Your task to perform on an android device: Search for the new Jordans on Nike.com Image 0: 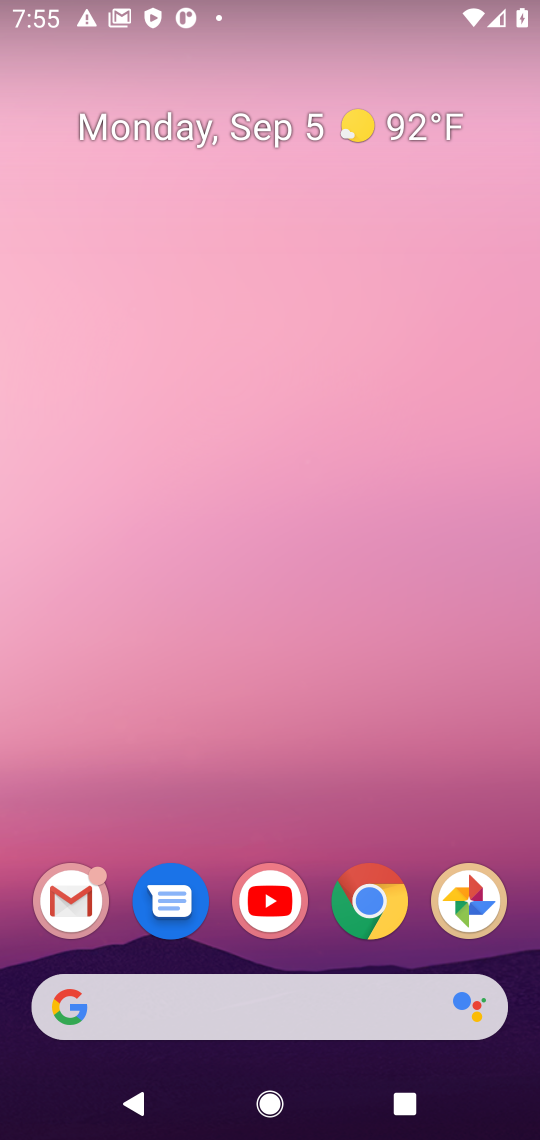
Step 0: click (378, 914)
Your task to perform on an android device: Search for the new Jordans on Nike.com Image 1: 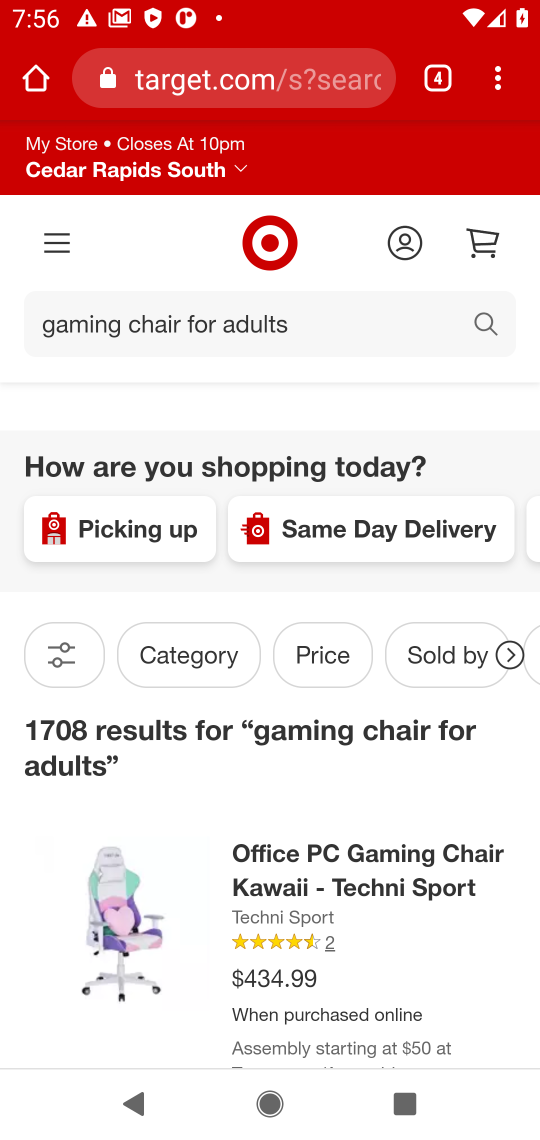
Step 1: click (331, 852)
Your task to perform on an android device: Search for the new Jordans on Nike.com Image 2: 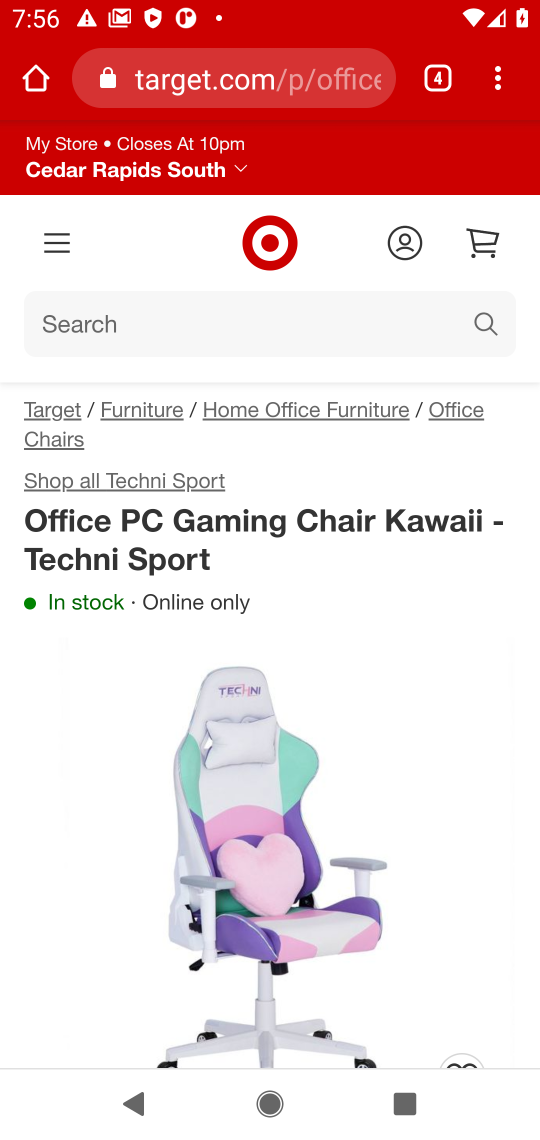
Step 2: click (312, 74)
Your task to perform on an android device: Search for the new Jordans on Nike.com Image 3: 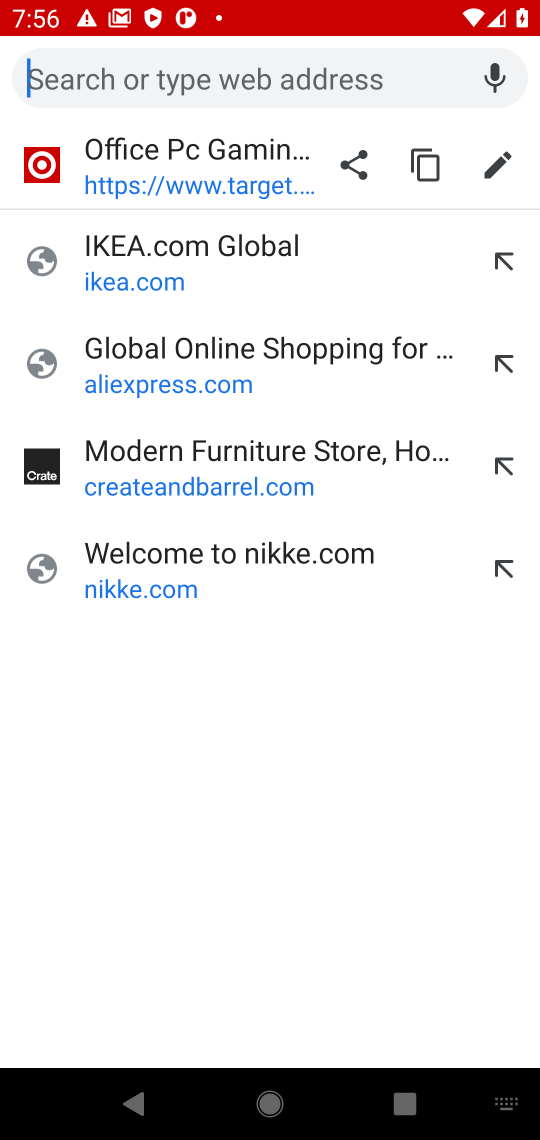
Step 3: click (178, 84)
Your task to perform on an android device: Search for the new Jordans on Nike.com Image 4: 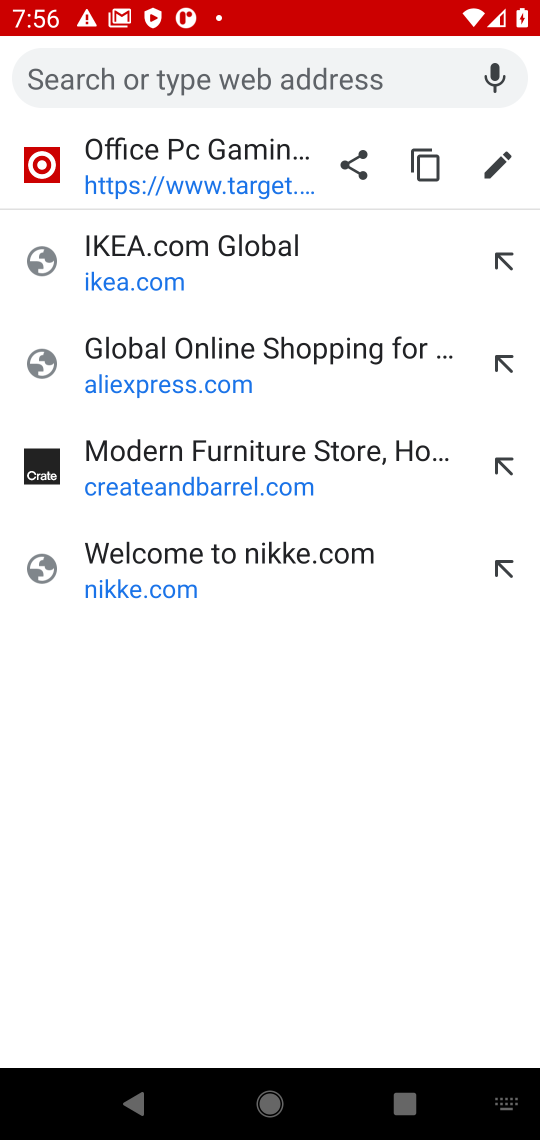
Step 4: type "nikki"
Your task to perform on an android device: Search for the new Jordans on Nike.com Image 5: 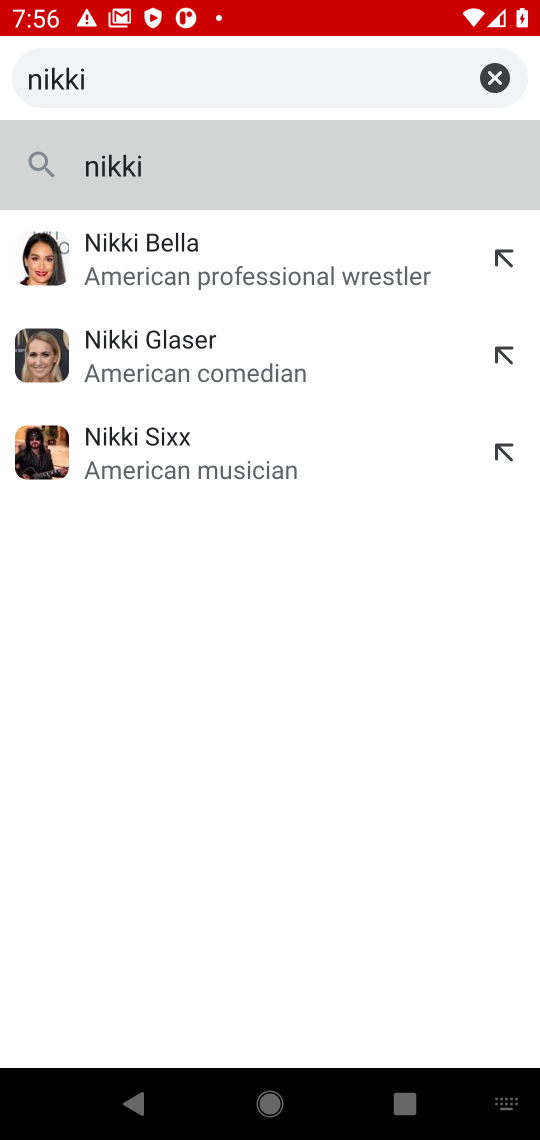
Step 5: click (174, 199)
Your task to perform on an android device: Search for the new Jordans on Nike.com Image 6: 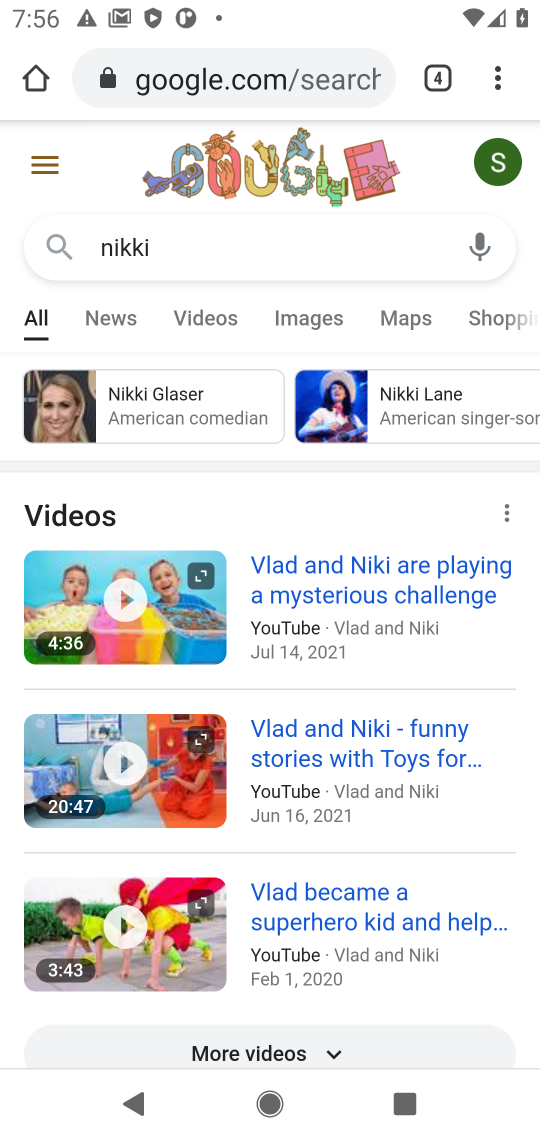
Step 6: click (177, 265)
Your task to perform on an android device: Search for the new Jordans on Nike.com Image 7: 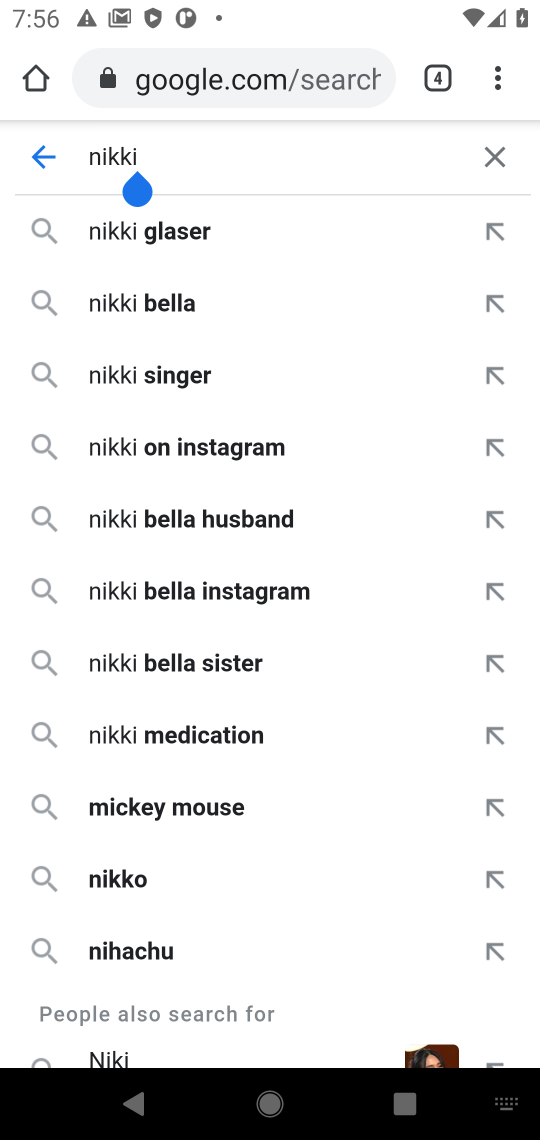
Step 7: click (495, 176)
Your task to perform on an android device: Search for the new Jordans on Nike.com Image 8: 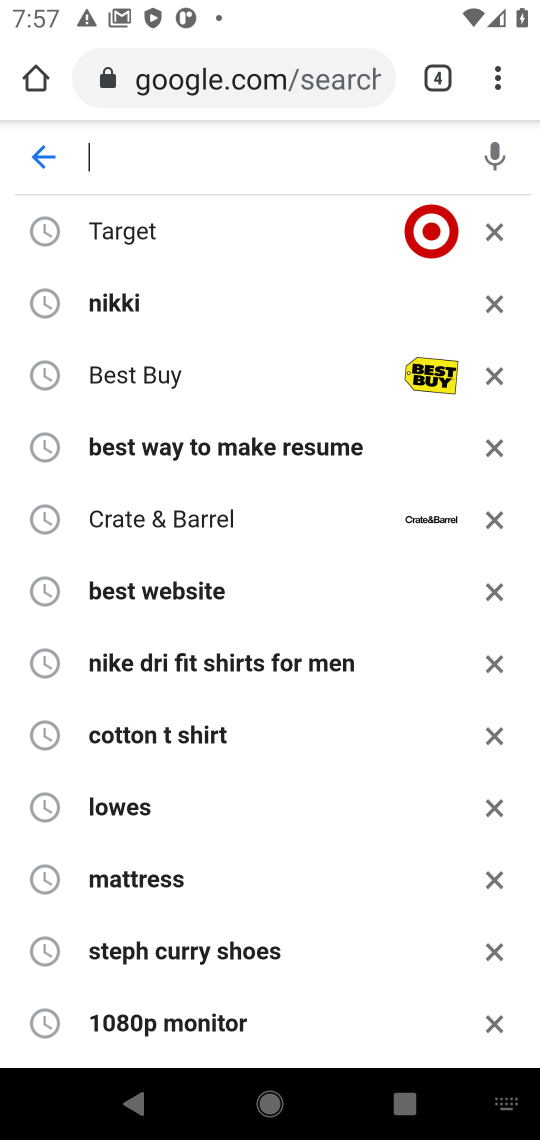
Step 8: type "nikke"
Your task to perform on an android device: Search for the new Jordans on Nike.com Image 9: 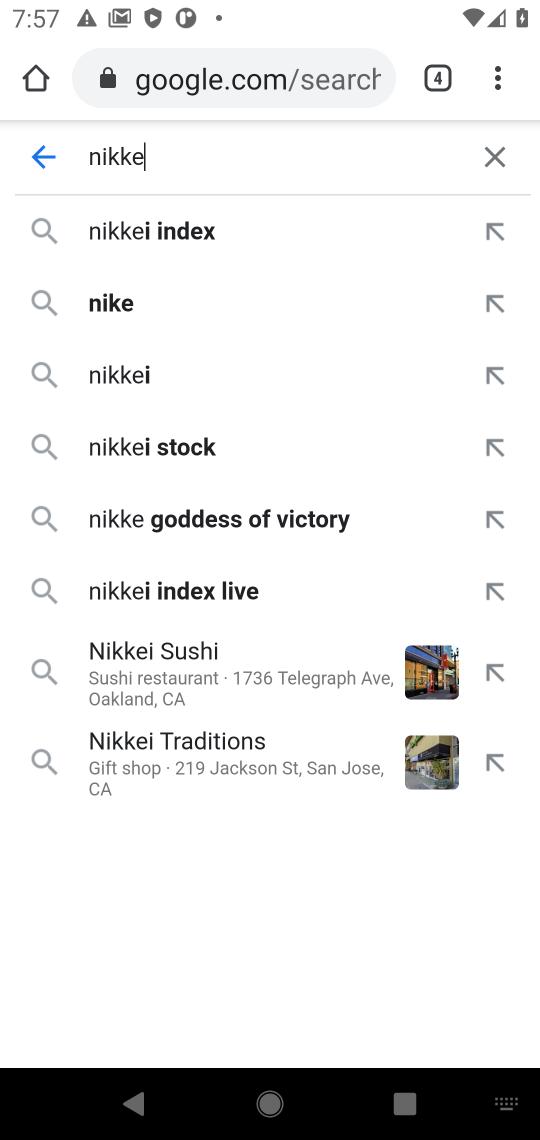
Step 9: click (140, 297)
Your task to perform on an android device: Search for the new Jordans on Nike.com Image 10: 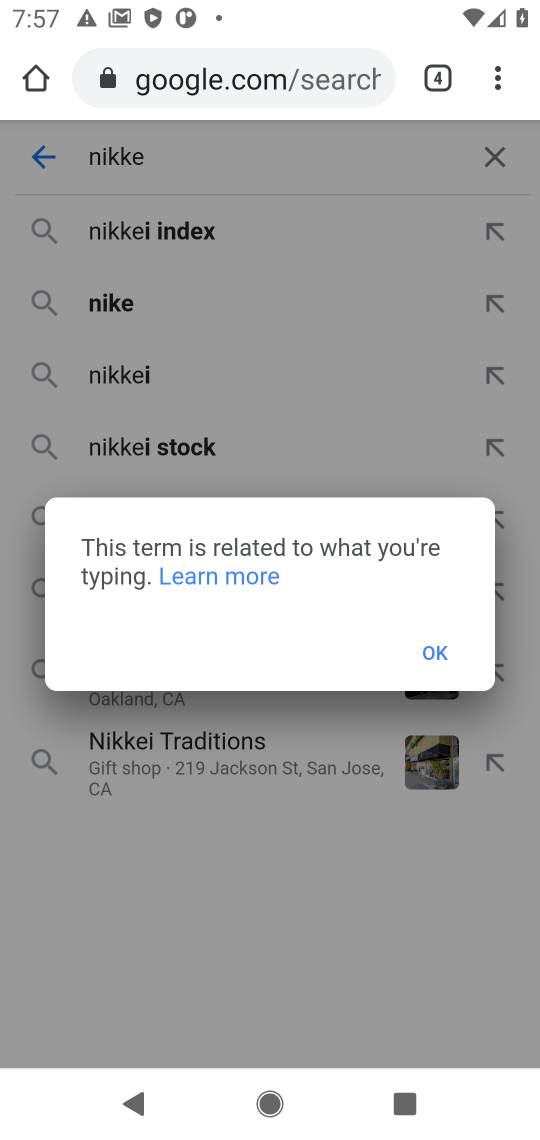
Step 10: click (439, 637)
Your task to perform on an android device: Search for the new Jordans on Nike.com Image 11: 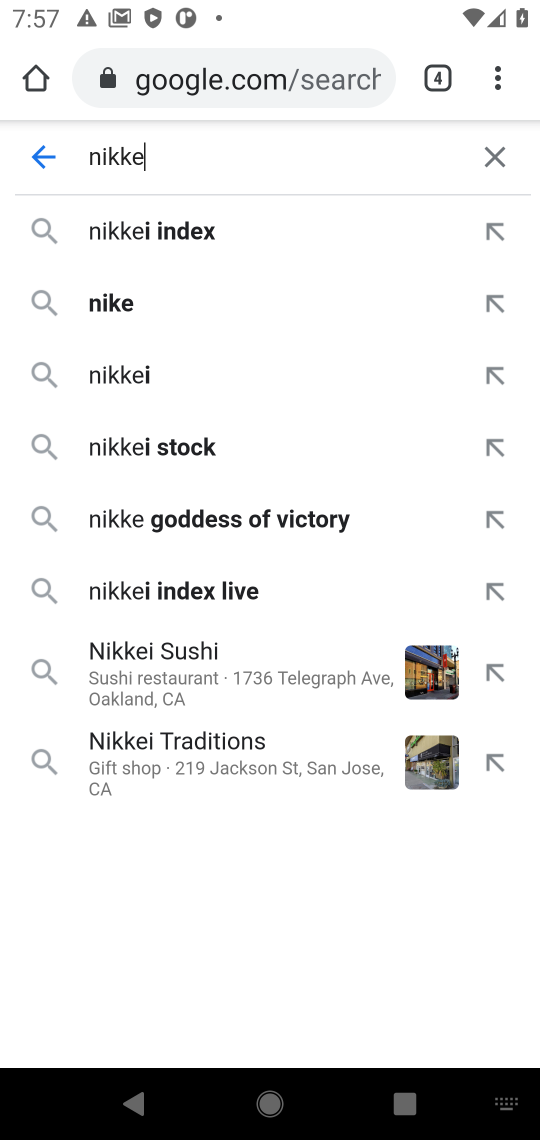
Step 11: click (139, 307)
Your task to perform on an android device: Search for the new Jordans on Nike.com Image 12: 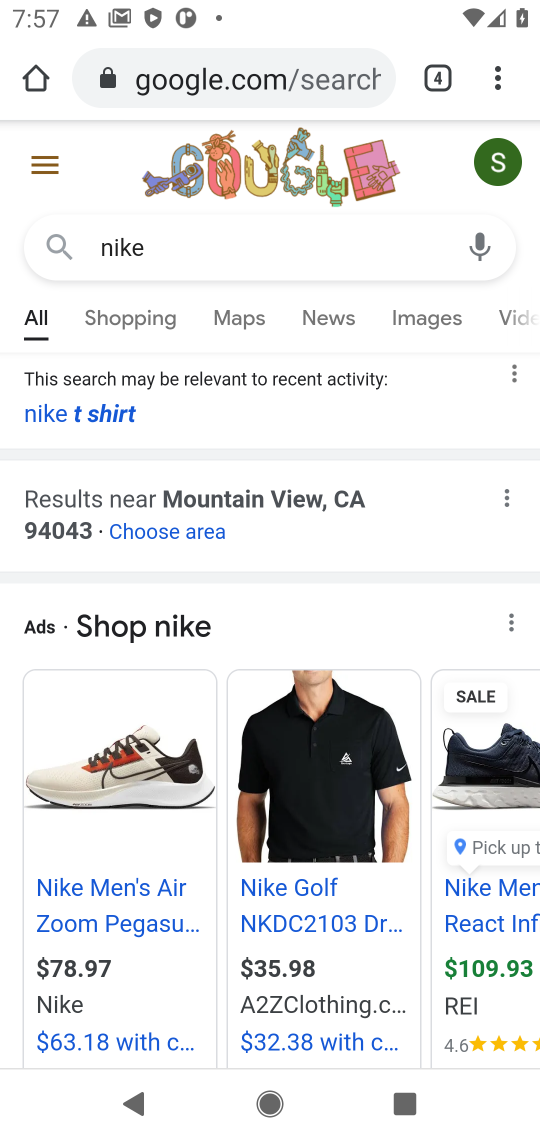
Step 12: click (141, 901)
Your task to perform on an android device: Search for the new Jordans on Nike.com Image 13: 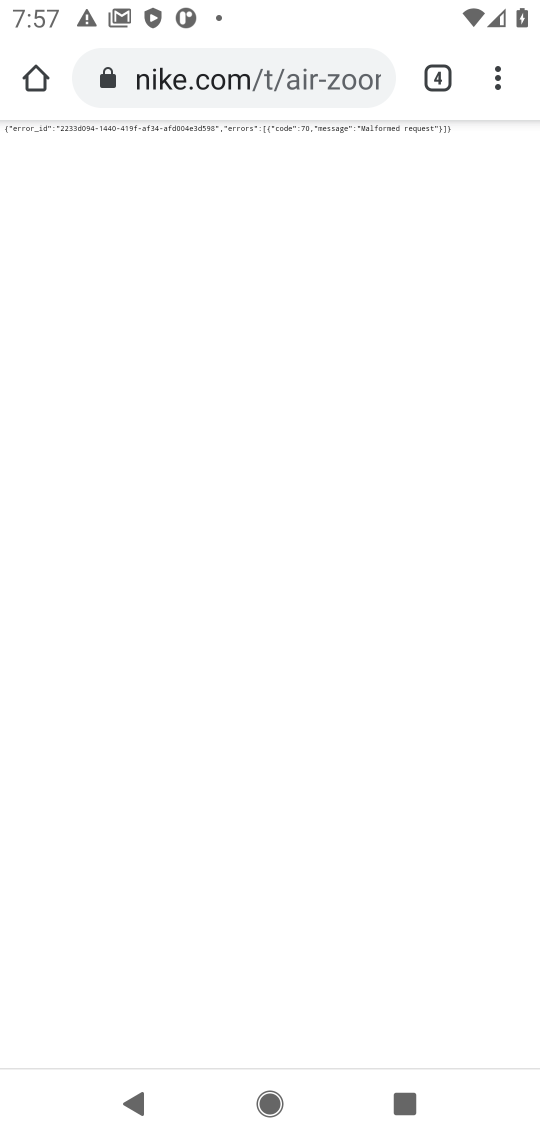
Step 13: task complete